Your task to perform on an android device: open wifi settings Image 0: 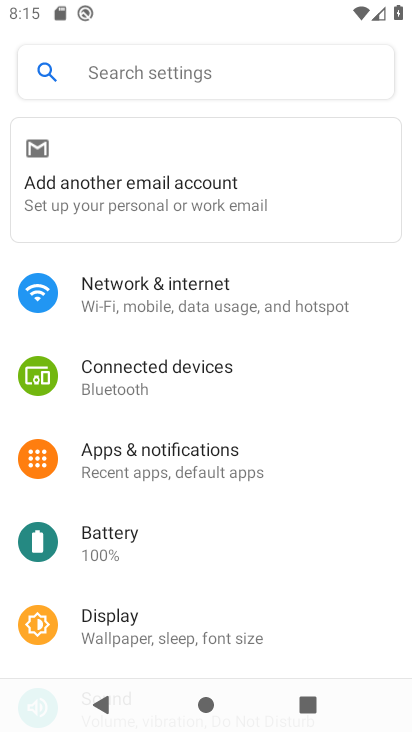
Step 0: press home button
Your task to perform on an android device: open wifi settings Image 1: 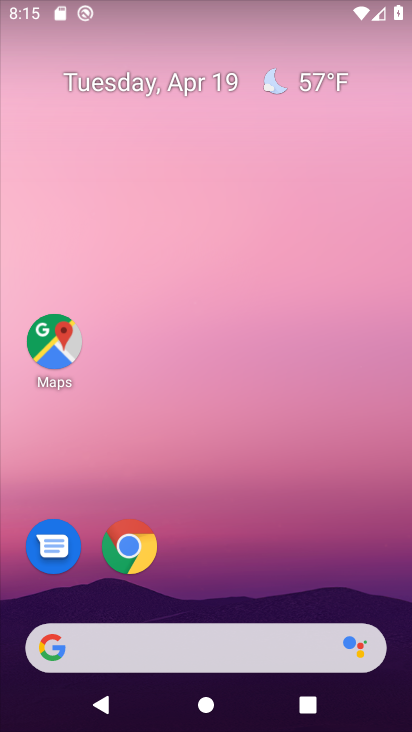
Step 1: drag from (201, 576) to (292, 23)
Your task to perform on an android device: open wifi settings Image 2: 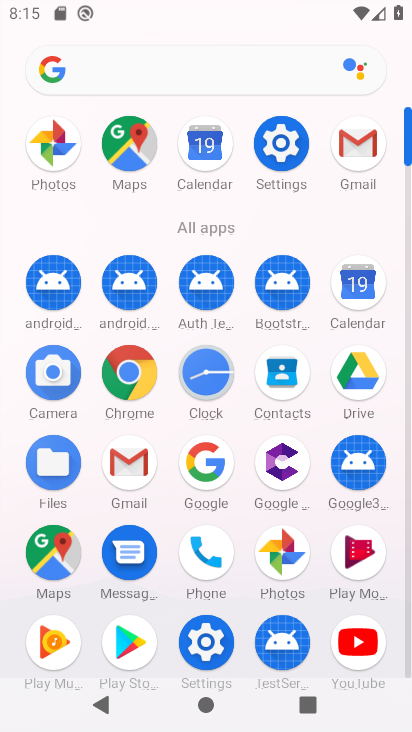
Step 2: click (272, 136)
Your task to perform on an android device: open wifi settings Image 3: 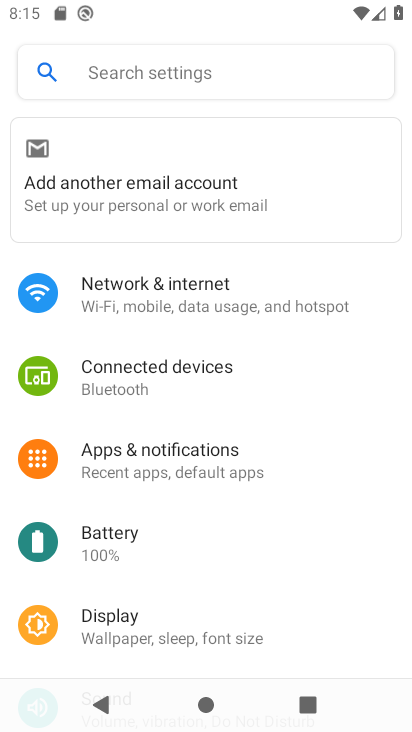
Step 3: click (183, 301)
Your task to perform on an android device: open wifi settings Image 4: 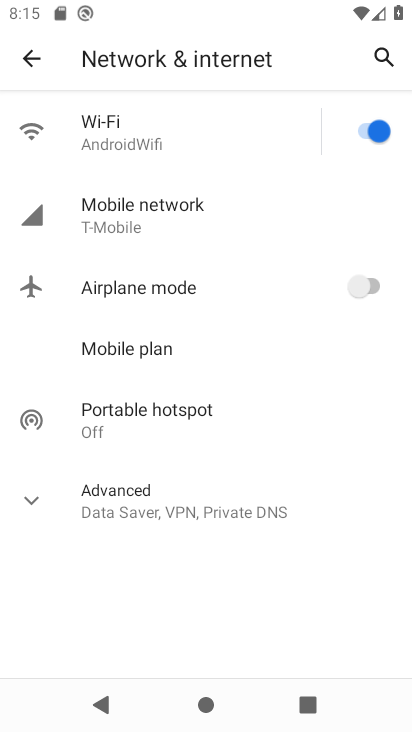
Step 4: click (147, 149)
Your task to perform on an android device: open wifi settings Image 5: 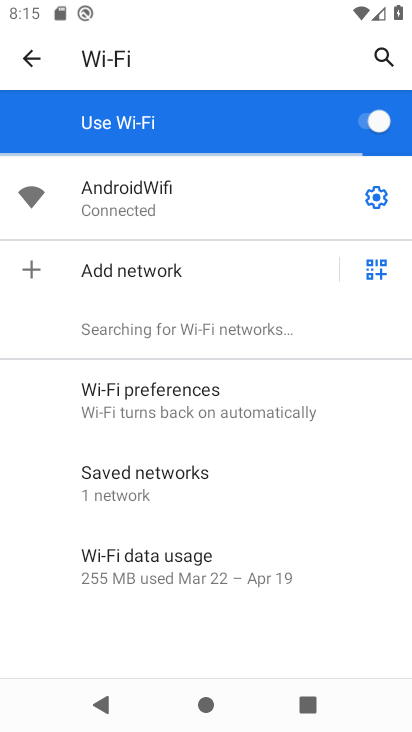
Step 5: task complete